Your task to perform on an android device: Search for Mexican restaurants on Maps Image 0: 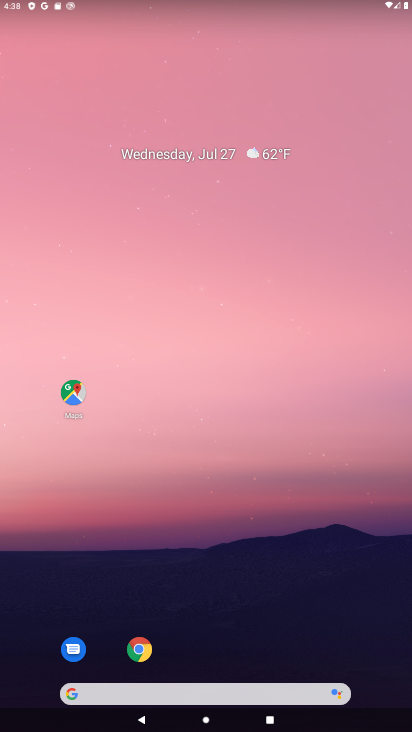
Step 0: drag from (258, 590) to (361, 54)
Your task to perform on an android device: Search for Mexican restaurants on Maps Image 1: 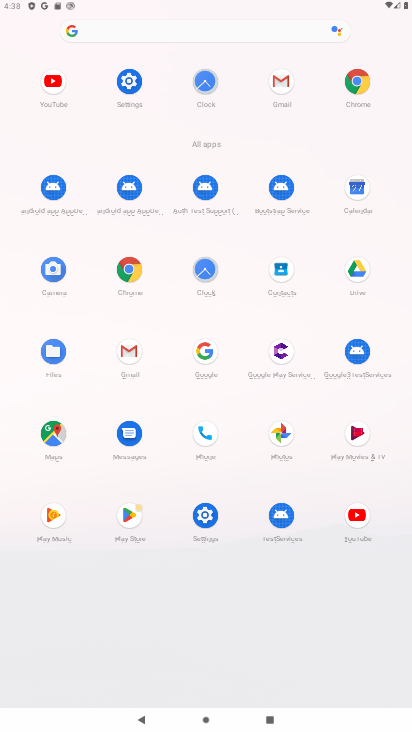
Step 1: click (54, 432)
Your task to perform on an android device: Search for Mexican restaurants on Maps Image 2: 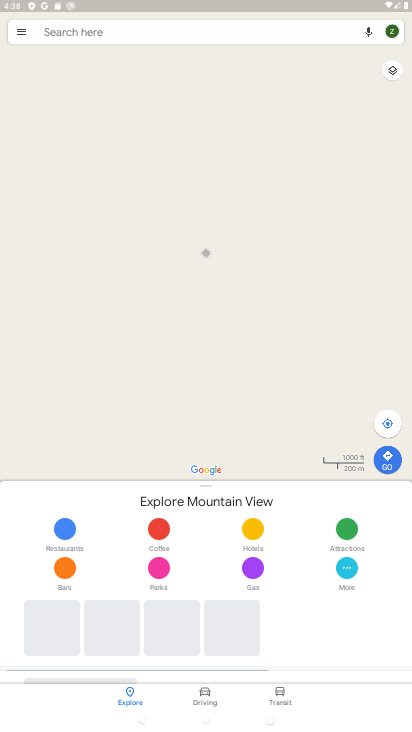
Step 2: click (117, 30)
Your task to perform on an android device: Search for Mexican restaurants on Maps Image 3: 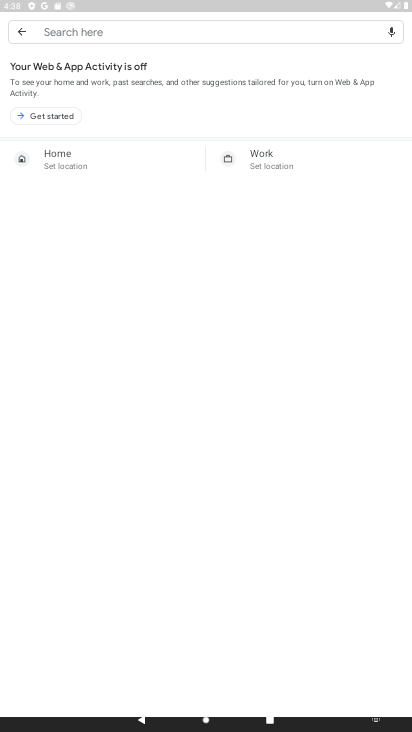
Step 3: type "Mexican restaurants "
Your task to perform on an android device: Search for Mexican restaurants on Maps Image 4: 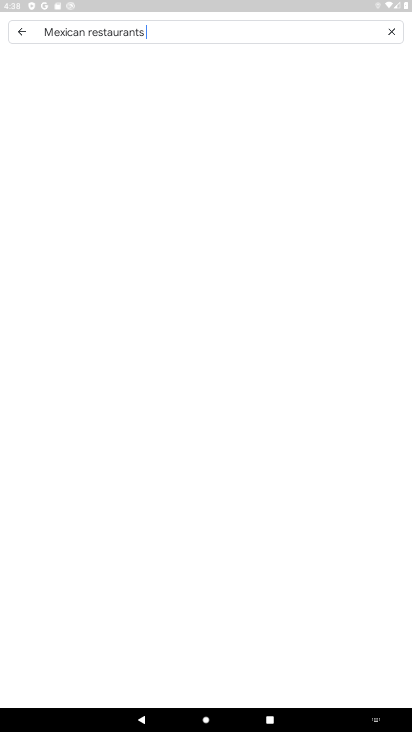
Step 4: press enter
Your task to perform on an android device: Search for Mexican restaurants on Maps Image 5: 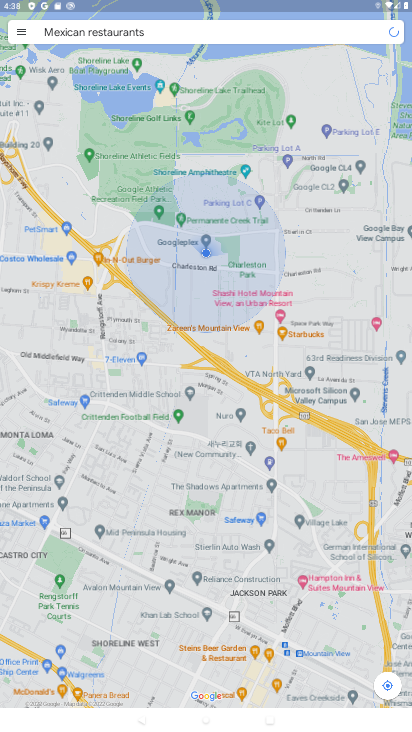
Step 5: press enter
Your task to perform on an android device: Search for Mexican restaurants on Maps Image 6: 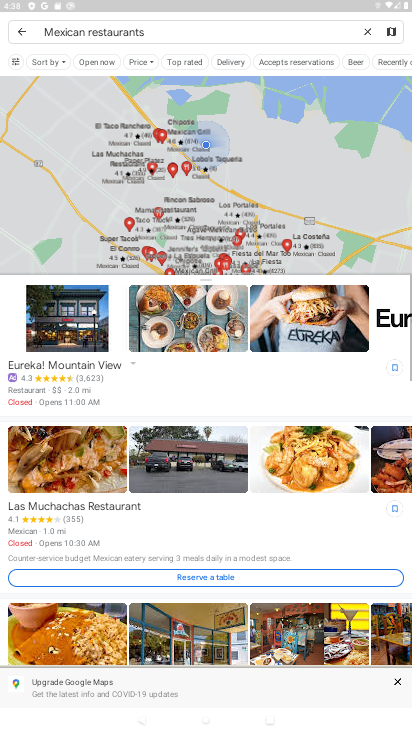
Step 6: task complete